Your task to perform on an android device: What's on my calendar today? Image 0: 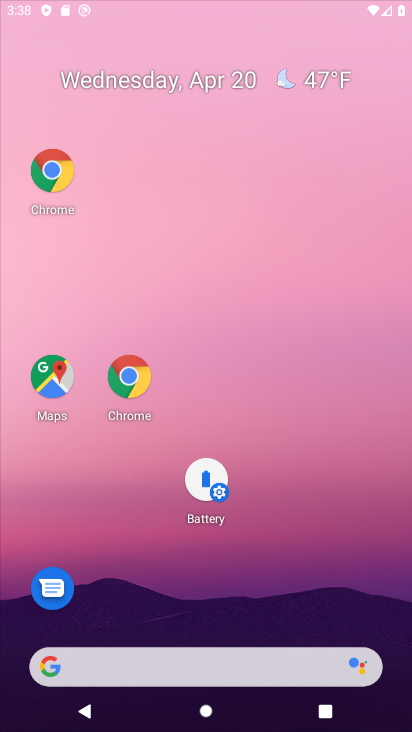
Step 0: click (341, 107)
Your task to perform on an android device: What's on my calendar today? Image 1: 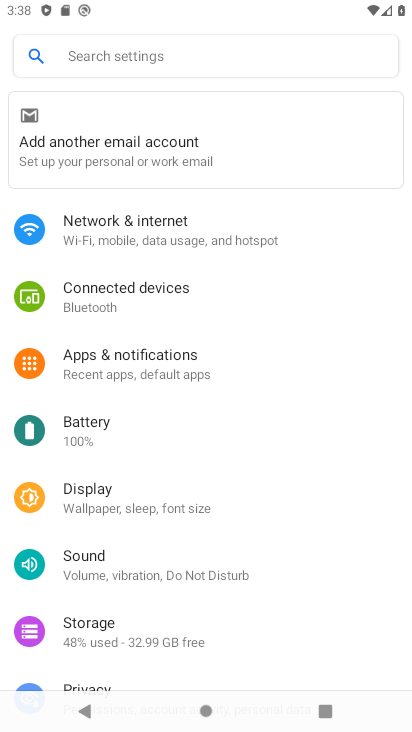
Step 1: press home button
Your task to perform on an android device: What's on my calendar today? Image 2: 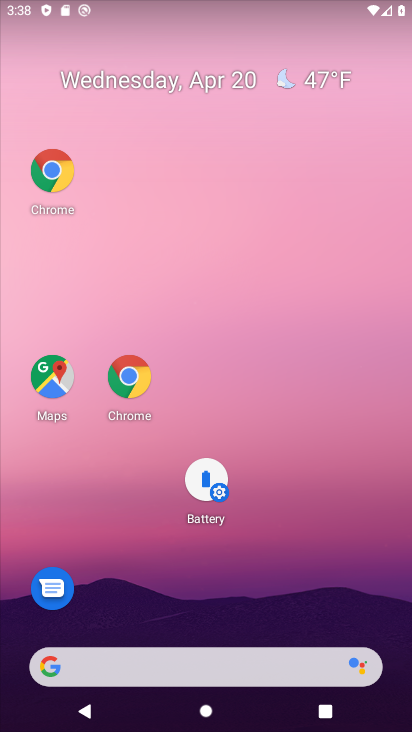
Step 2: drag from (278, 645) to (261, 130)
Your task to perform on an android device: What's on my calendar today? Image 3: 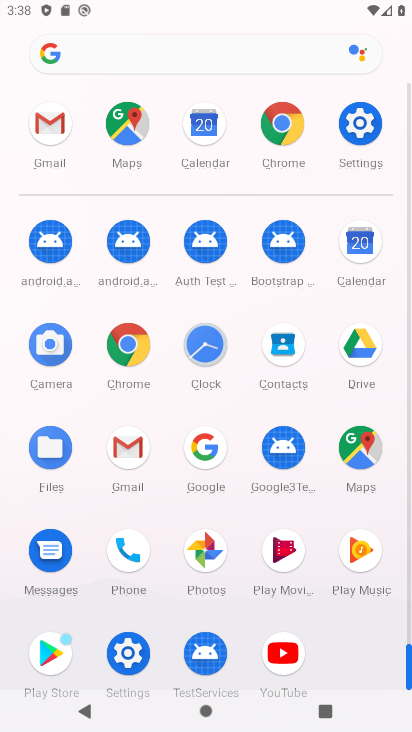
Step 3: click (360, 256)
Your task to perform on an android device: What's on my calendar today? Image 4: 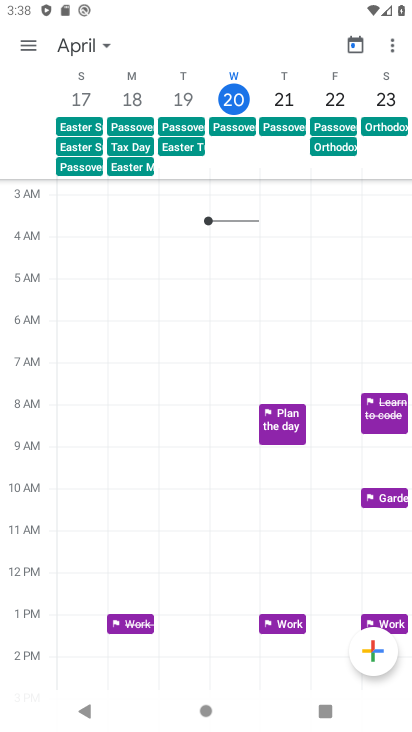
Step 4: click (227, 106)
Your task to perform on an android device: What's on my calendar today? Image 5: 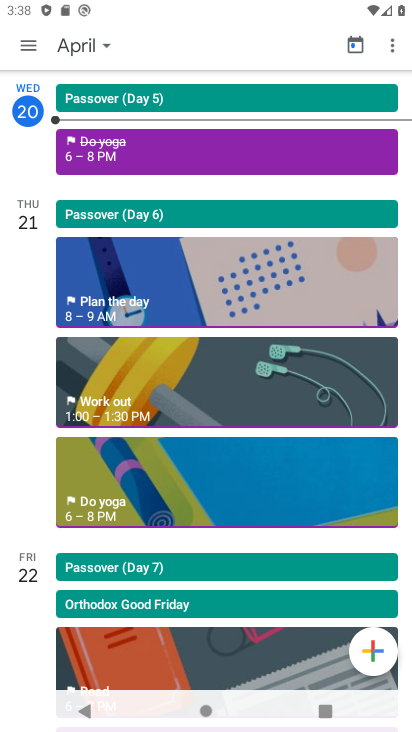
Step 5: task complete